Your task to perform on an android device: Go to internet settings Image 0: 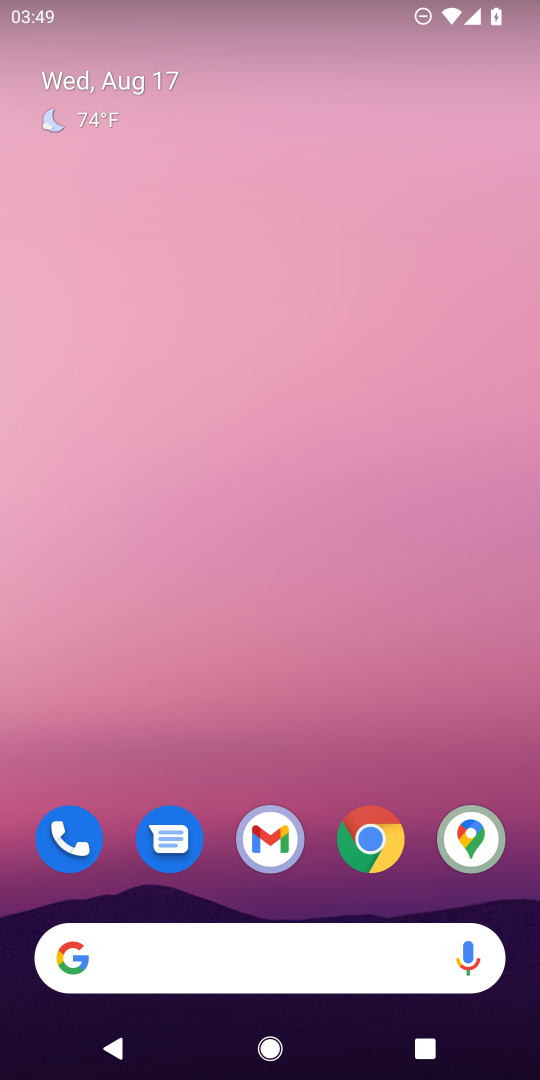
Step 0: drag from (340, 817) to (340, 82)
Your task to perform on an android device: Go to internet settings Image 1: 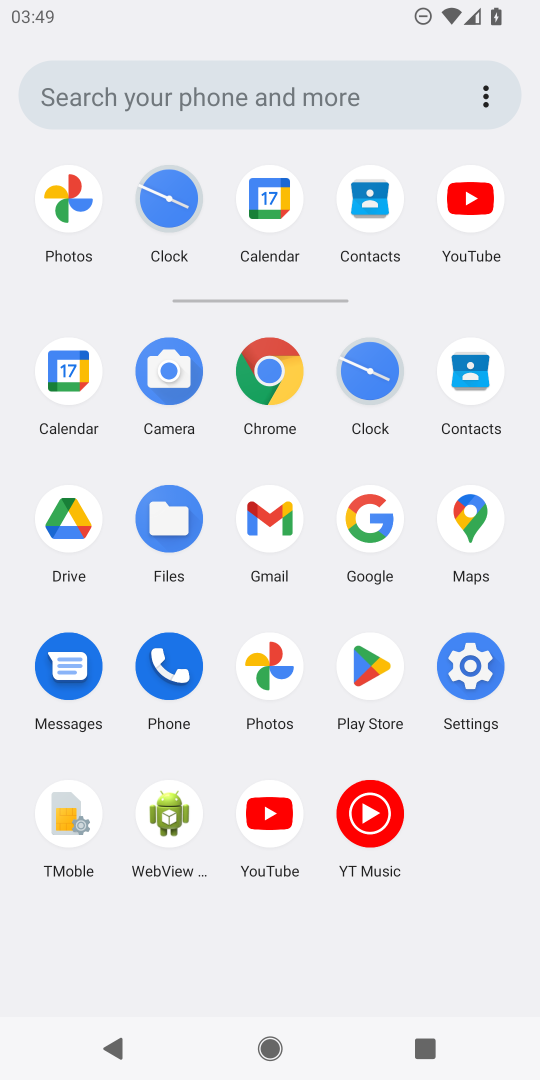
Step 1: click (460, 677)
Your task to perform on an android device: Go to internet settings Image 2: 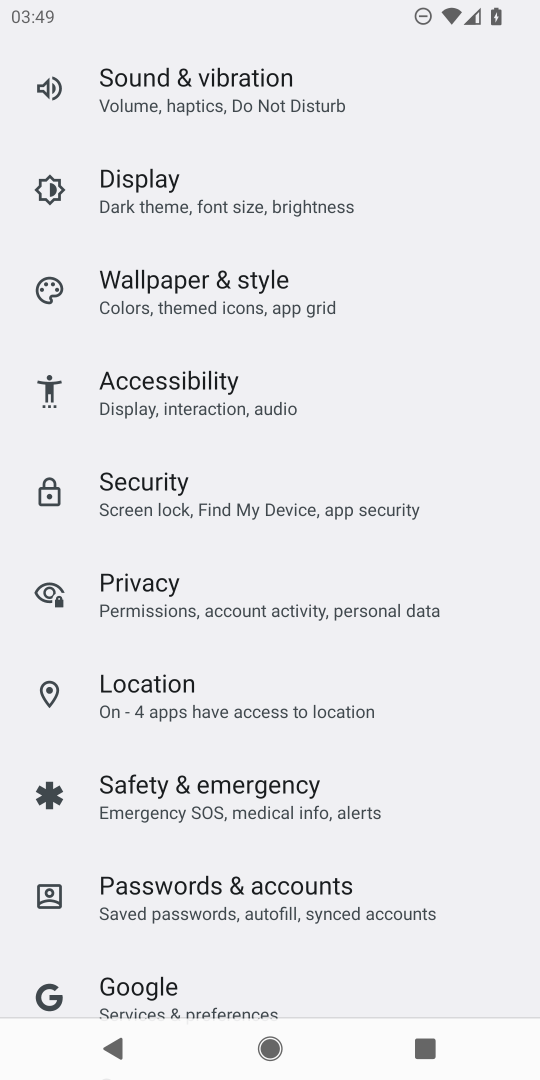
Step 2: drag from (230, 148) to (216, 712)
Your task to perform on an android device: Go to internet settings Image 3: 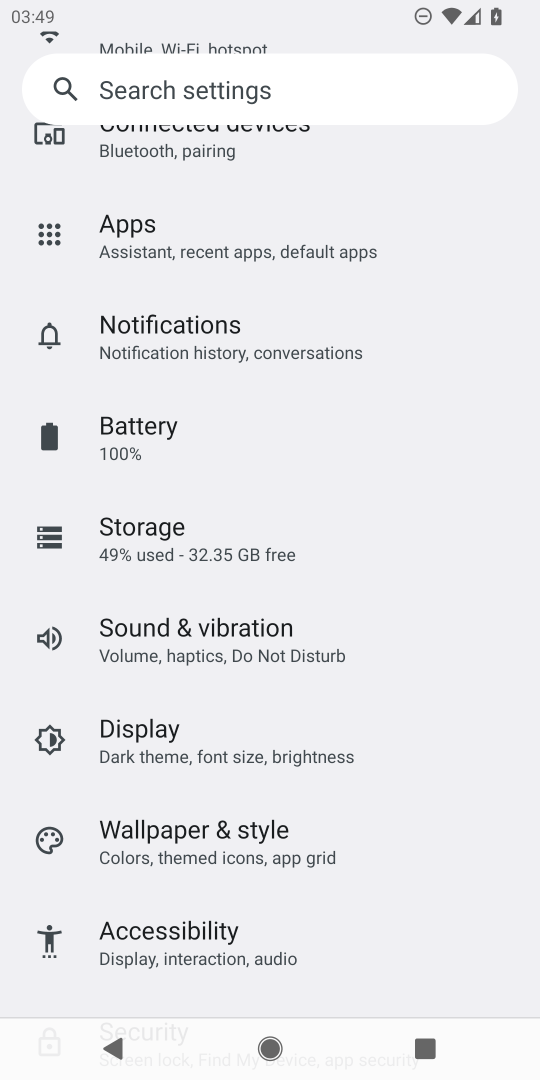
Step 3: drag from (189, 221) to (186, 720)
Your task to perform on an android device: Go to internet settings Image 4: 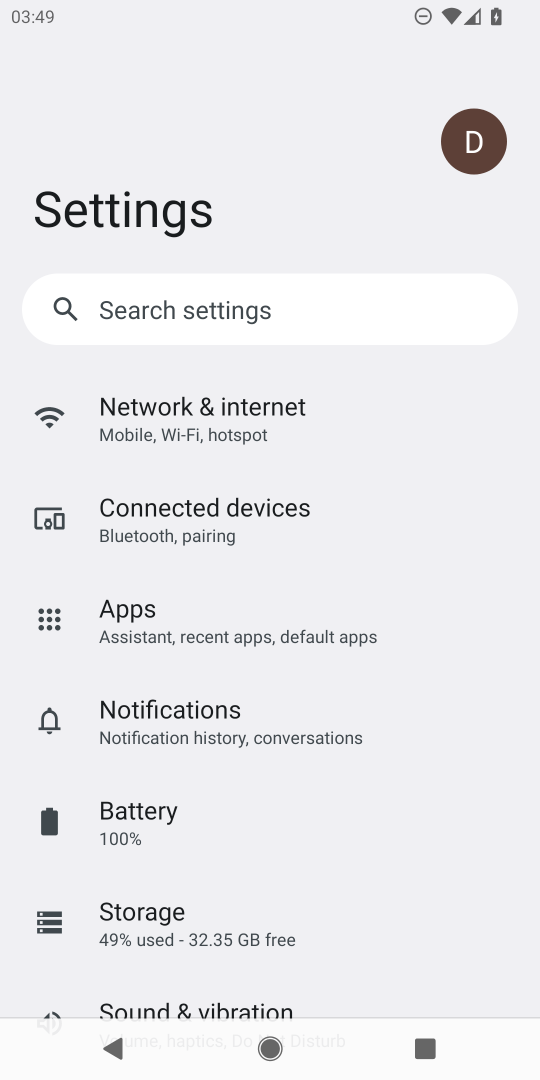
Step 4: click (170, 424)
Your task to perform on an android device: Go to internet settings Image 5: 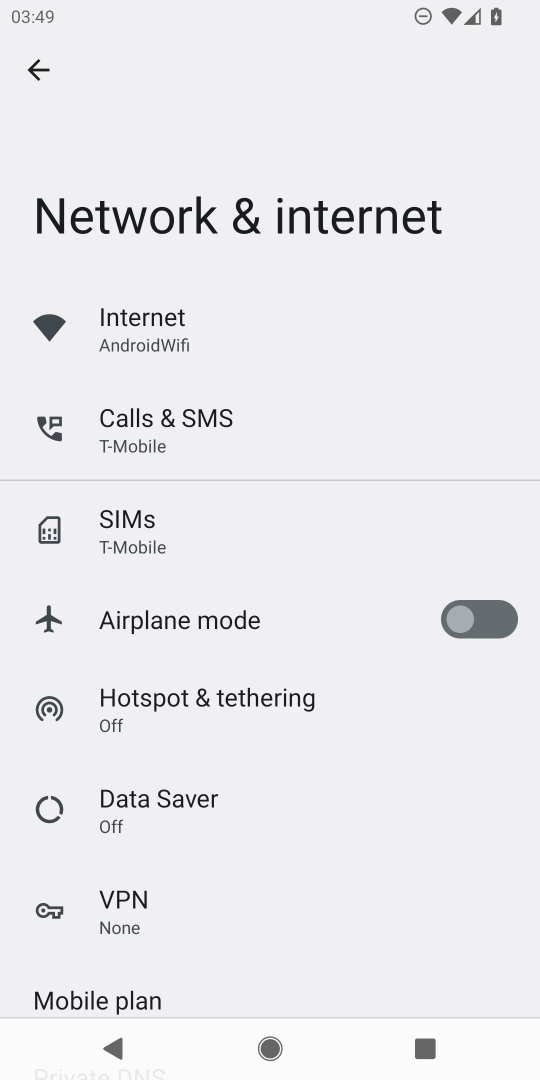
Step 5: click (127, 328)
Your task to perform on an android device: Go to internet settings Image 6: 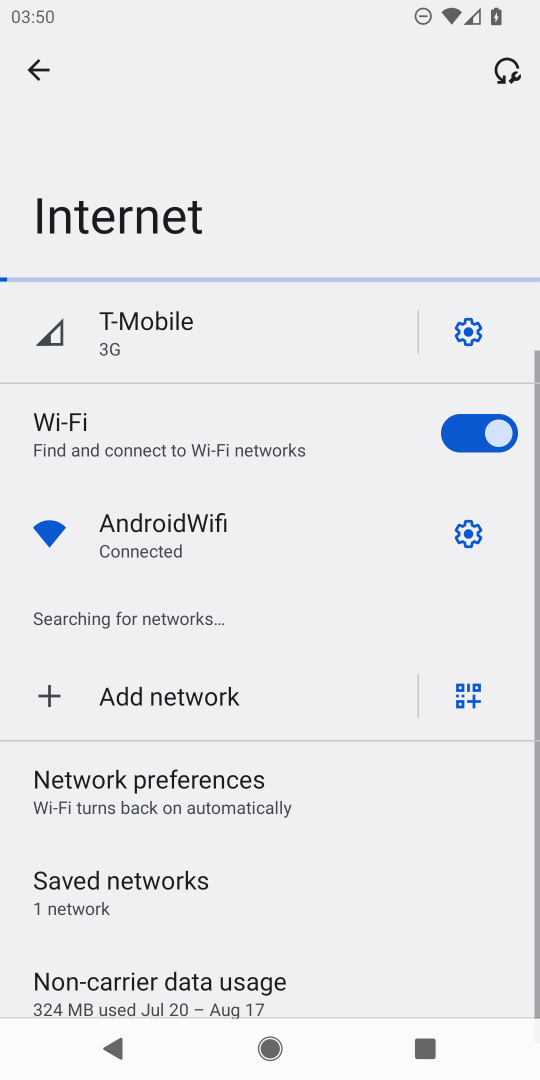
Step 6: task complete